Your task to perform on an android device: open app "McDonald's" (install if not already installed), go to login, and select forgot password Image 0: 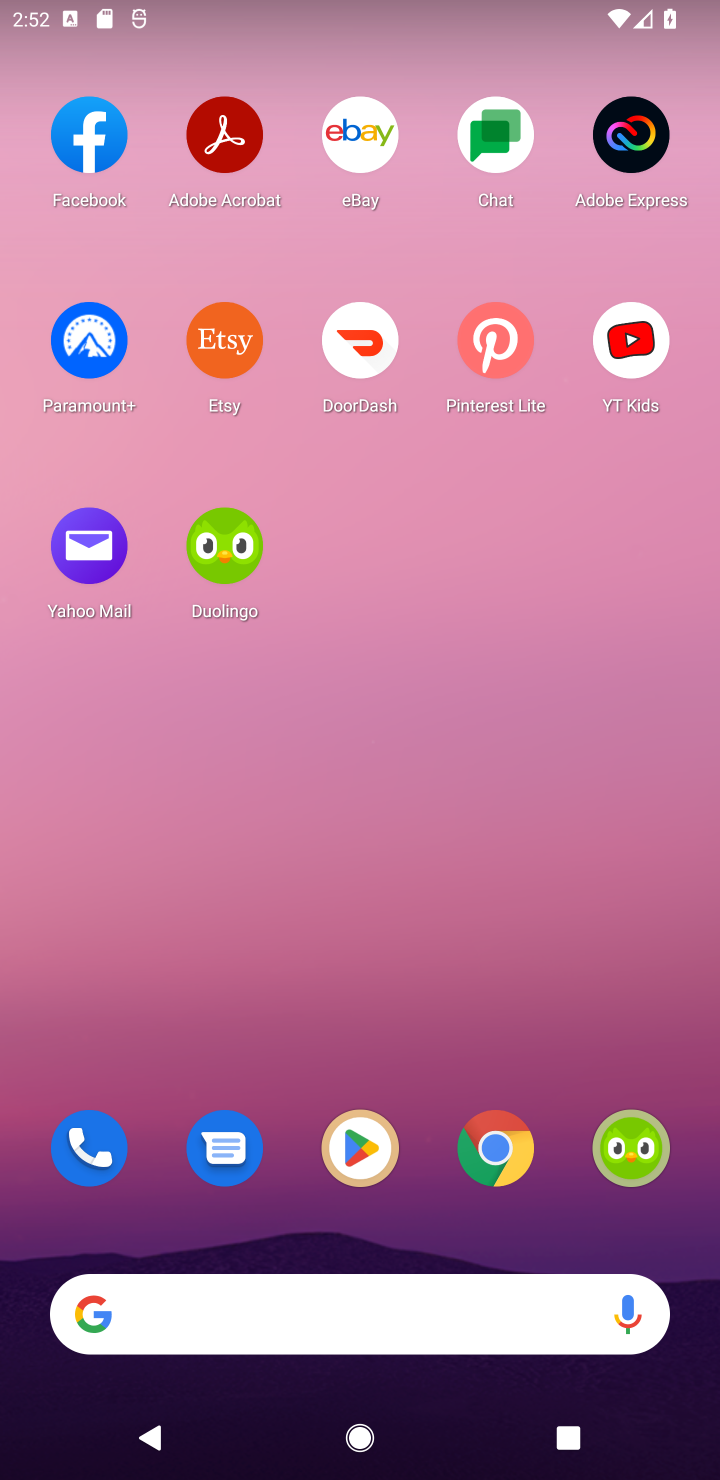
Step 0: click (368, 1152)
Your task to perform on an android device: open app "McDonald's" (install if not already installed), go to login, and select forgot password Image 1: 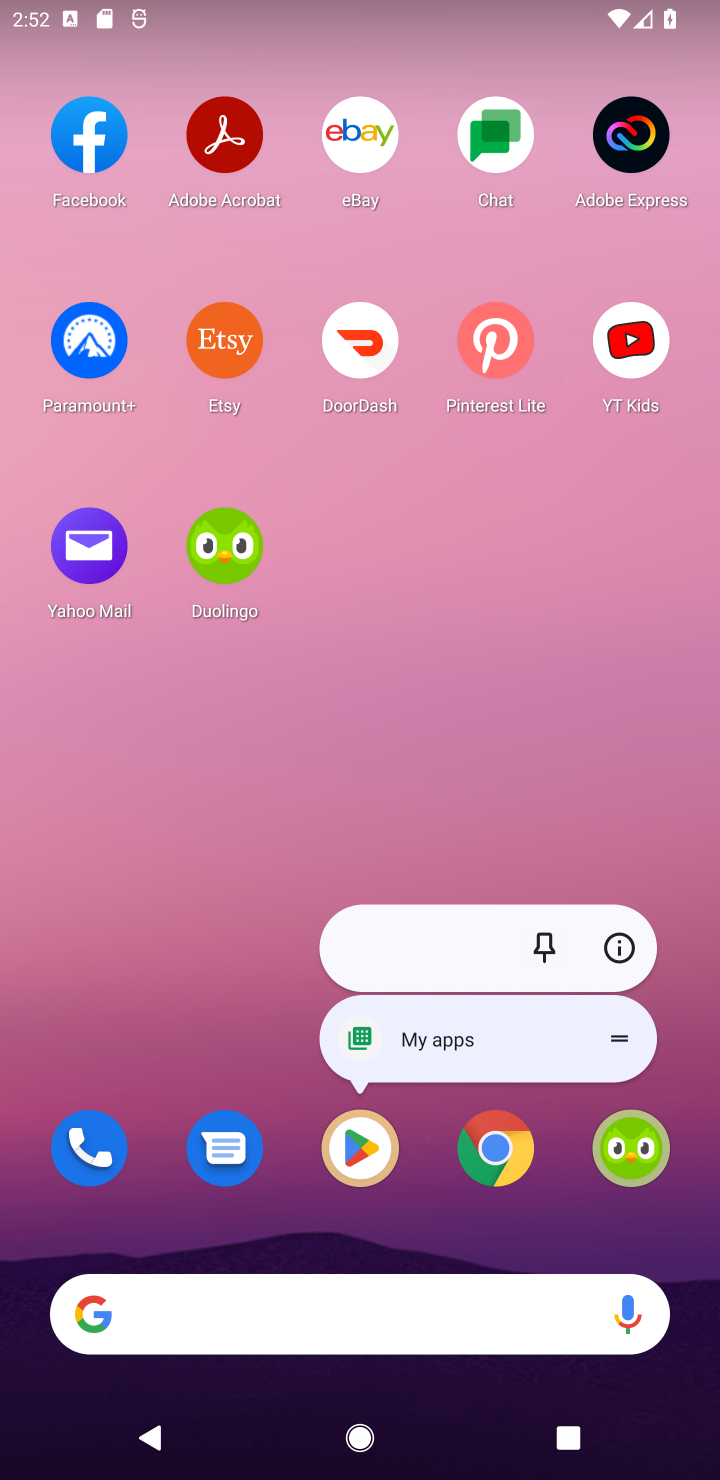
Step 1: click (368, 1152)
Your task to perform on an android device: open app "McDonald's" (install if not already installed), go to login, and select forgot password Image 2: 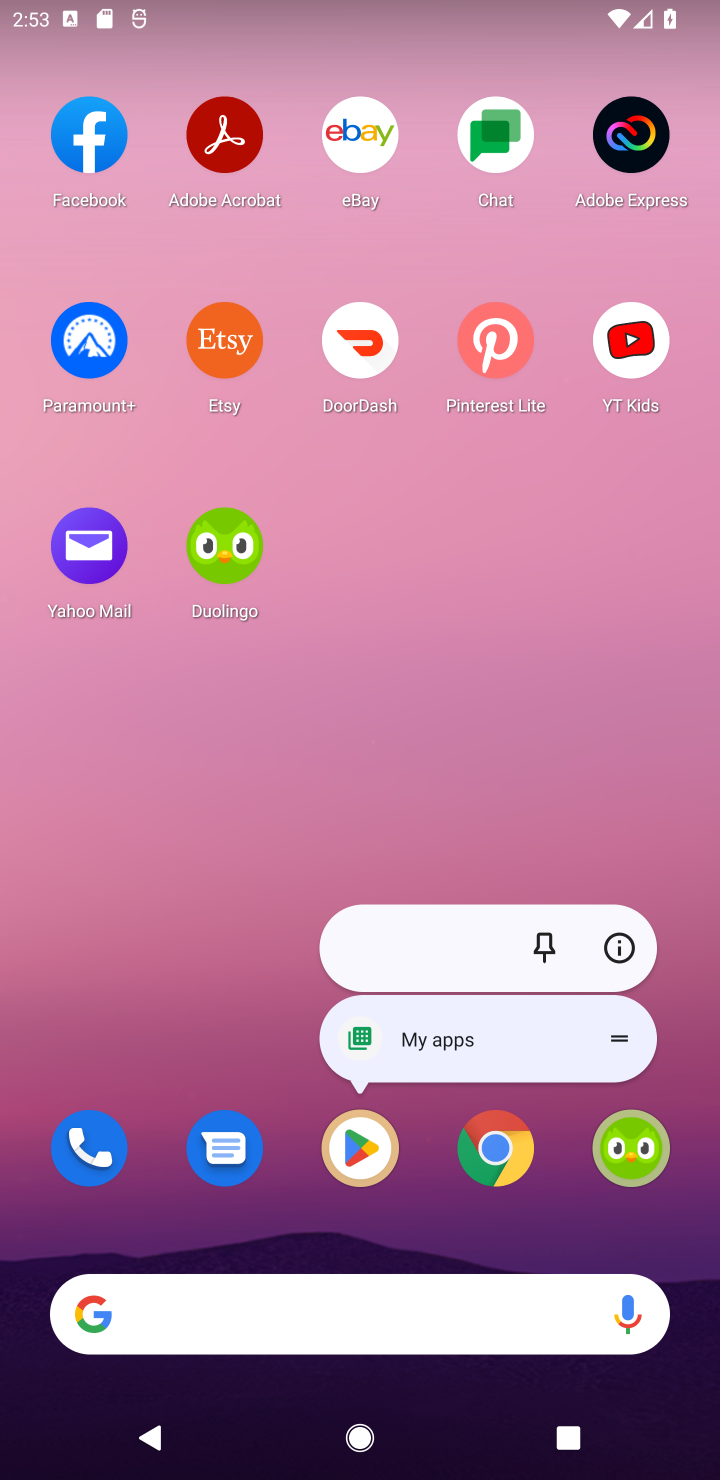
Step 2: click (368, 1152)
Your task to perform on an android device: open app "McDonald's" (install if not already installed), go to login, and select forgot password Image 3: 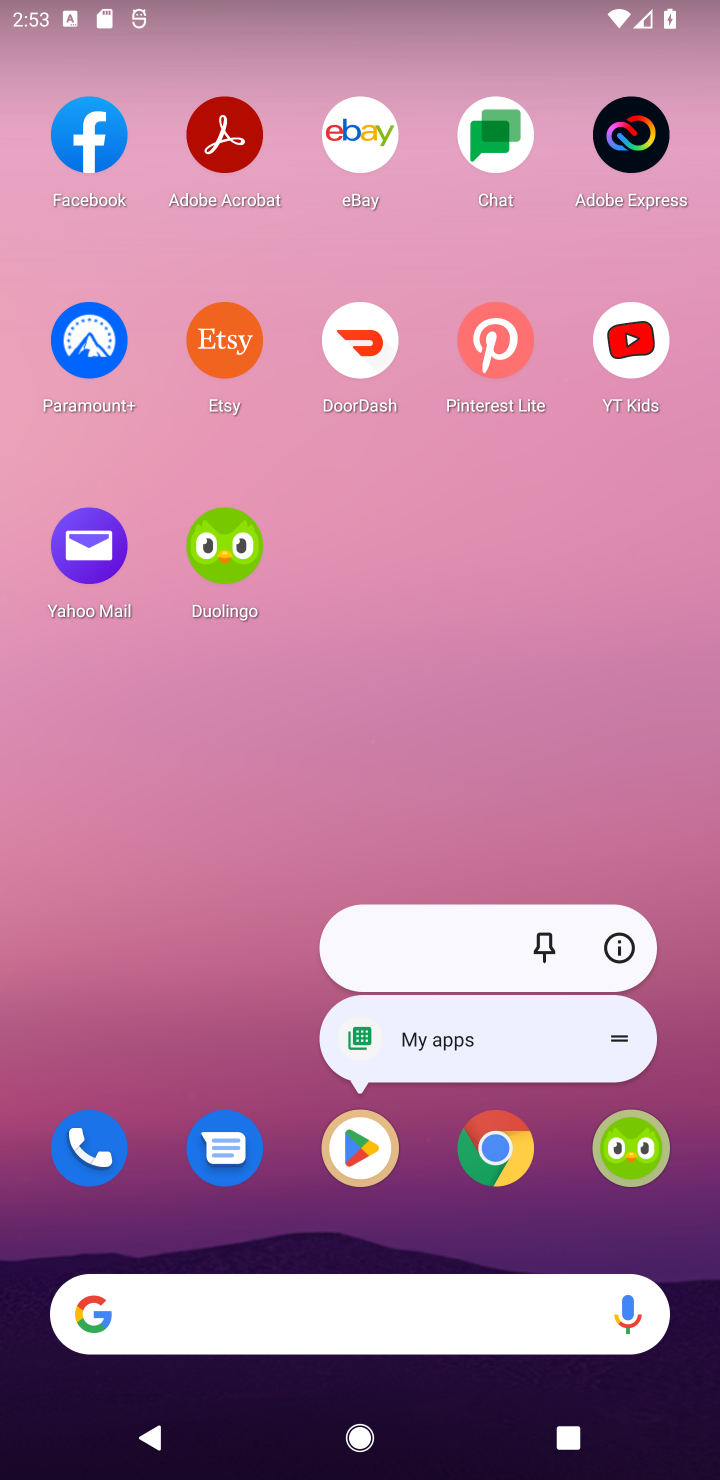
Step 3: click (340, 1137)
Your task to perform on an android device: open app "McDonald's" (install if not already installed), go to login, and select forgot password Image 4: 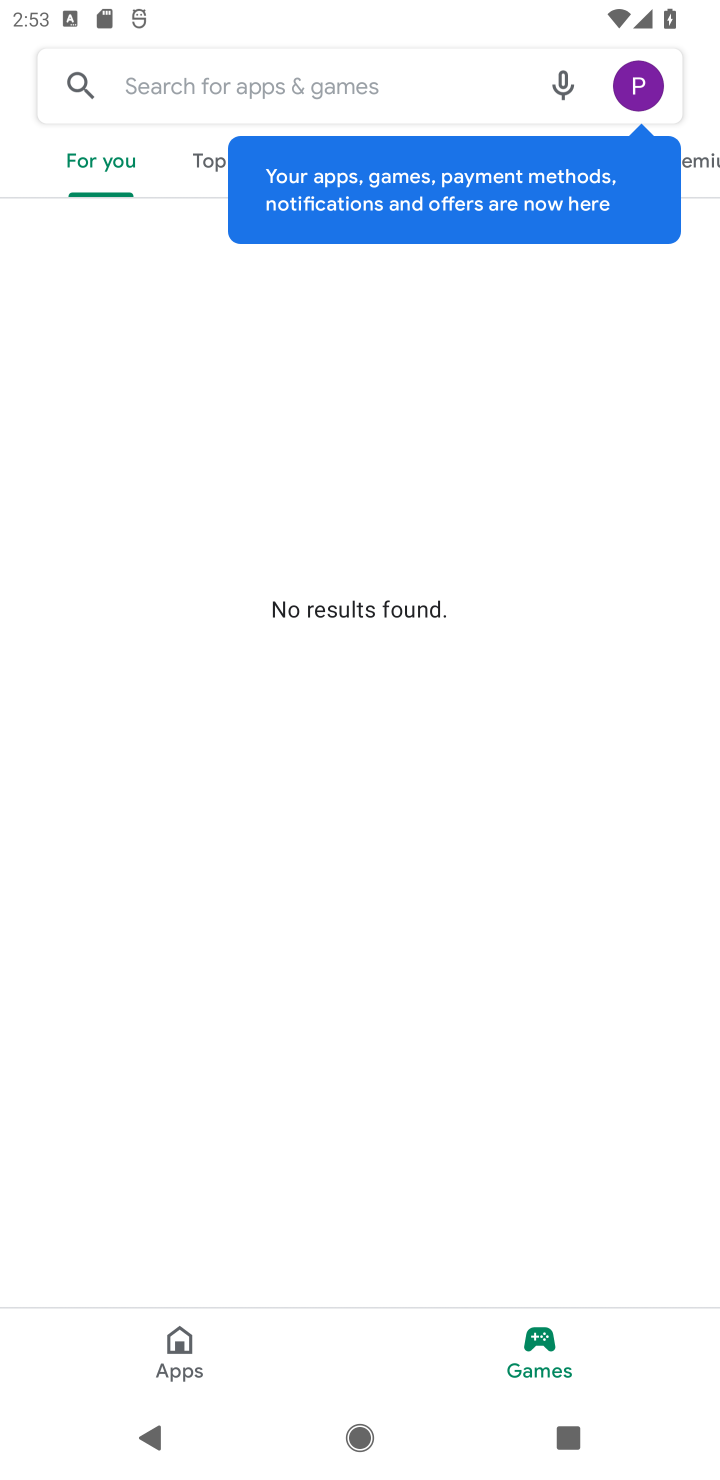
Step 4: click (207, 53)
Your task to perform on an android device: open app "McDonald's" (install if not already installed), go to login, and select forgot password Image 5: 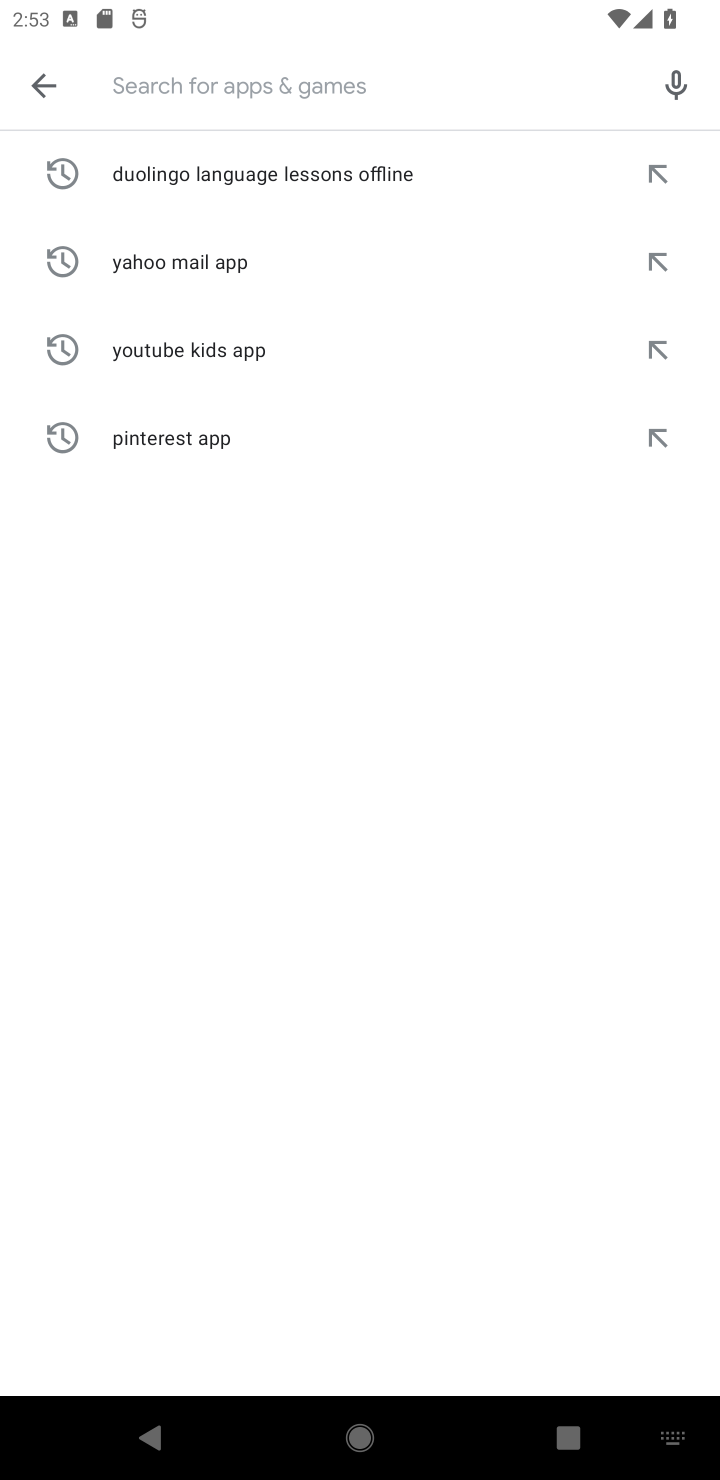
Step 5: type "McDonald's "
Your task to perform on an android device: open app "McDonald's" (install if not already installed), go to login, and select forgot password Image 6: 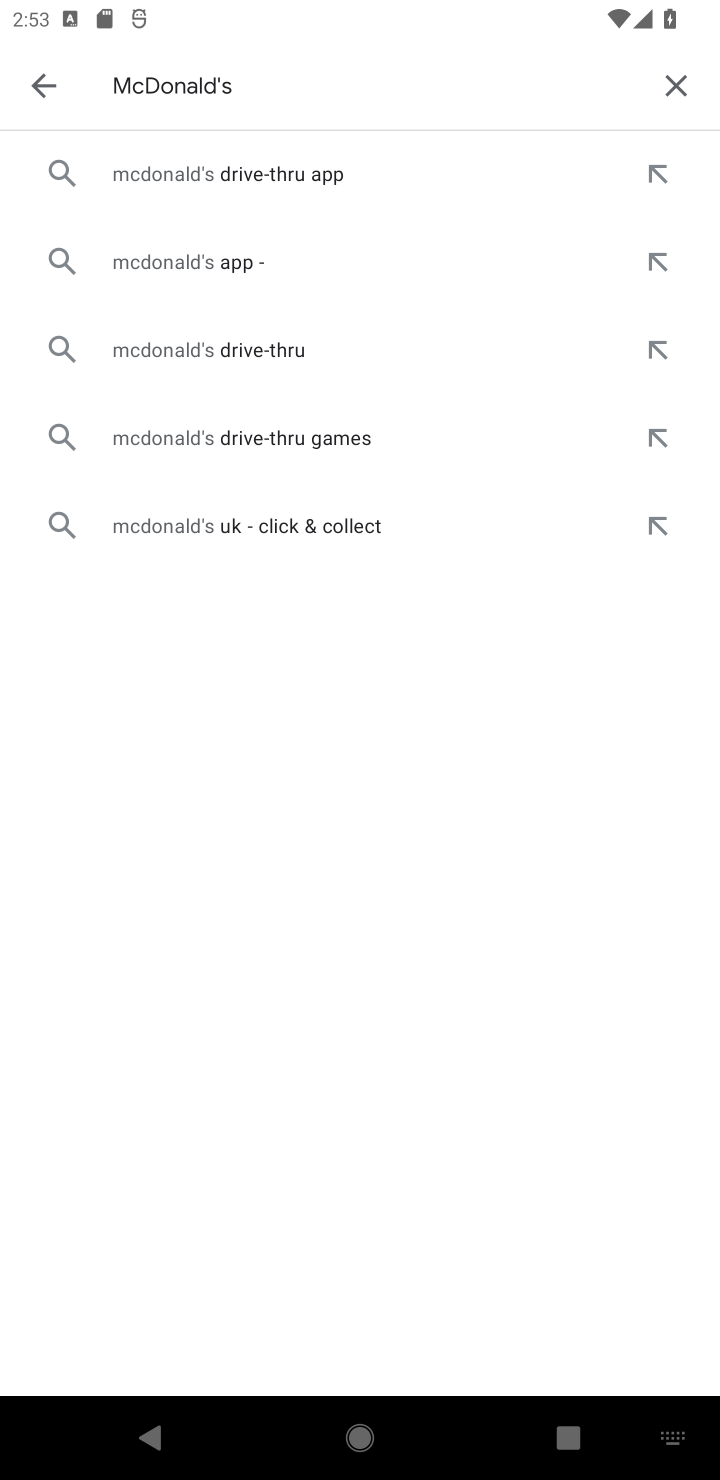
Step 6: click (227, 167)
Your task to perform on an android device: open app "McDonald's" (install if not already installed), go to login, and select forgot password Image 7: 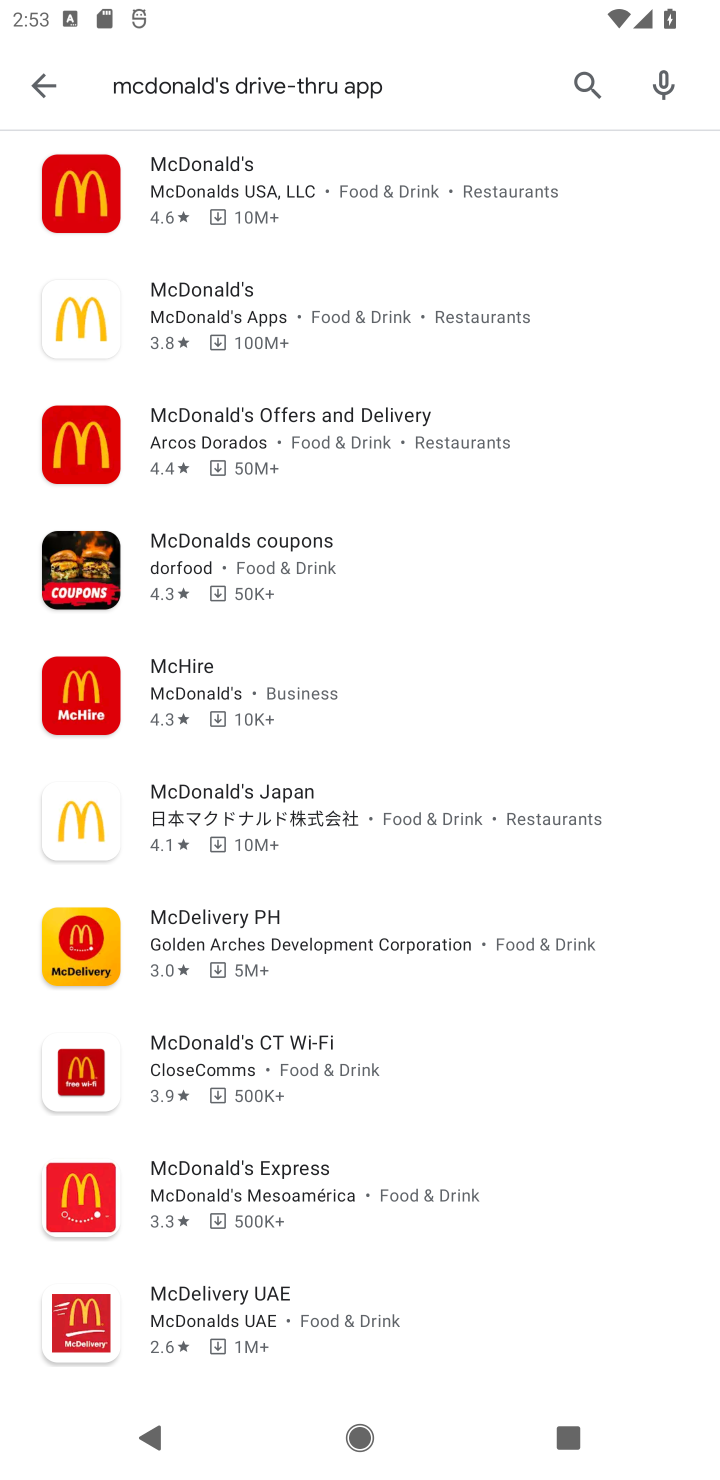
Step 7: click (284, 203)
Your task to perform on an android device: open app "McDonald's" (install if not already installed), go to login, and select forgot password Image 8: 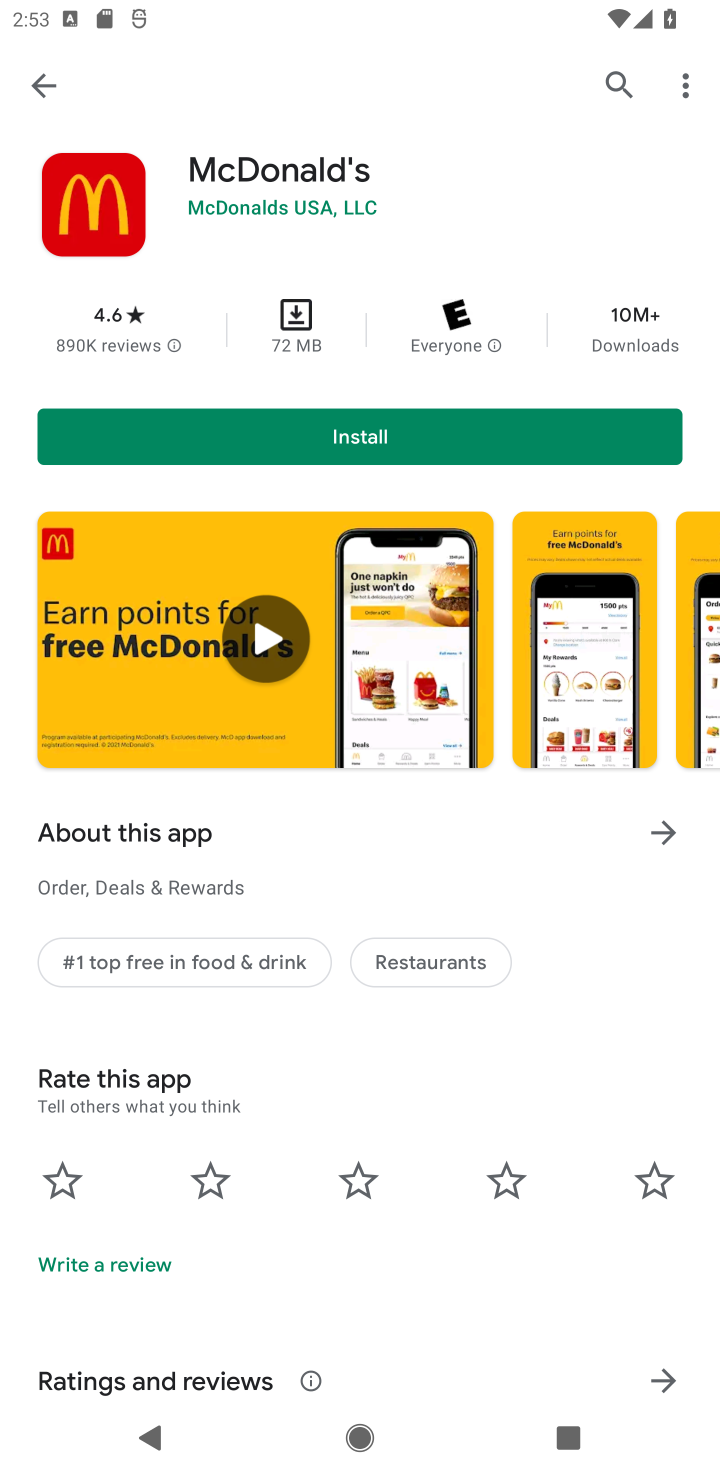
Step 8: click (452, 432)
Your task to perform on an android device: open app "McDonald's" (install if not already installed), go to login, and select forgot password Image 9: 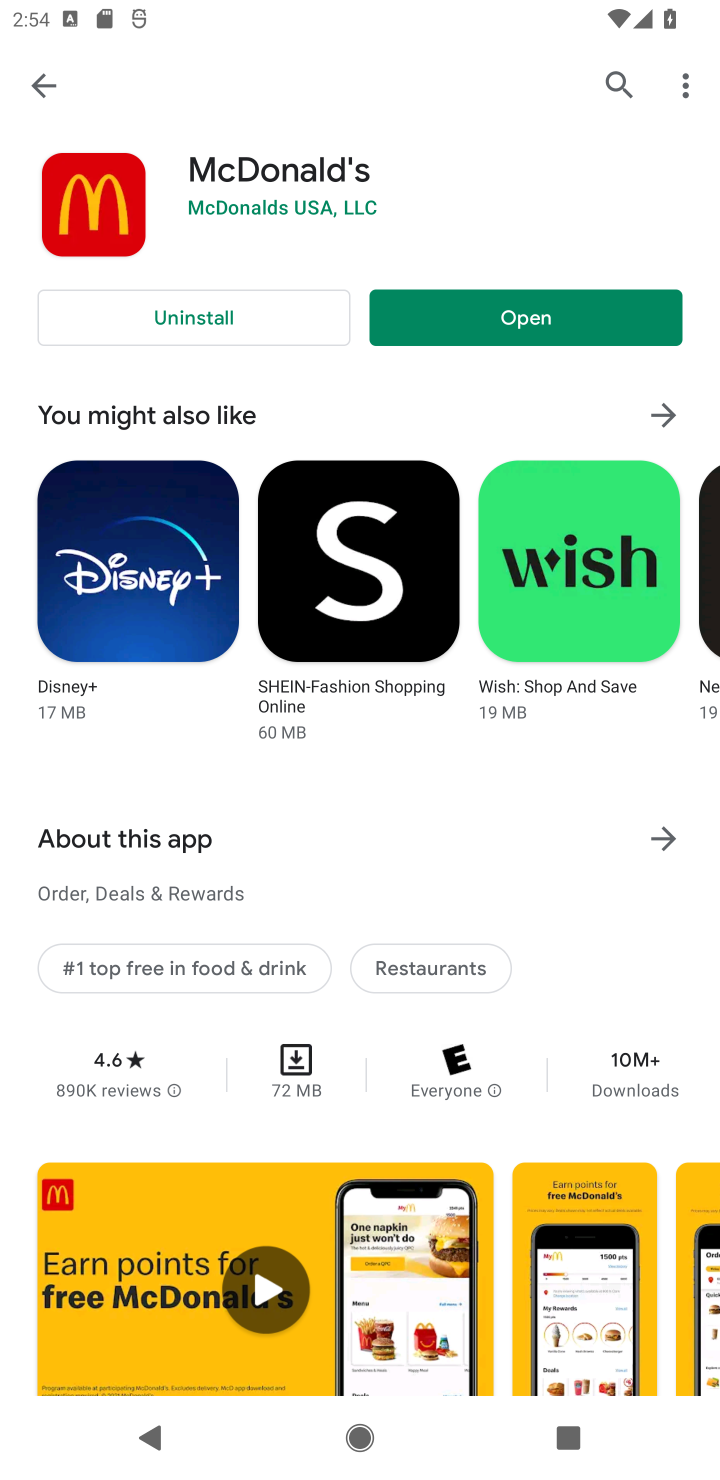
Step 9: click (553, 324)
Your task to perform on an android device: open app "McDonald's" (install if not already installed), go to login, and select forgot password Image 10: 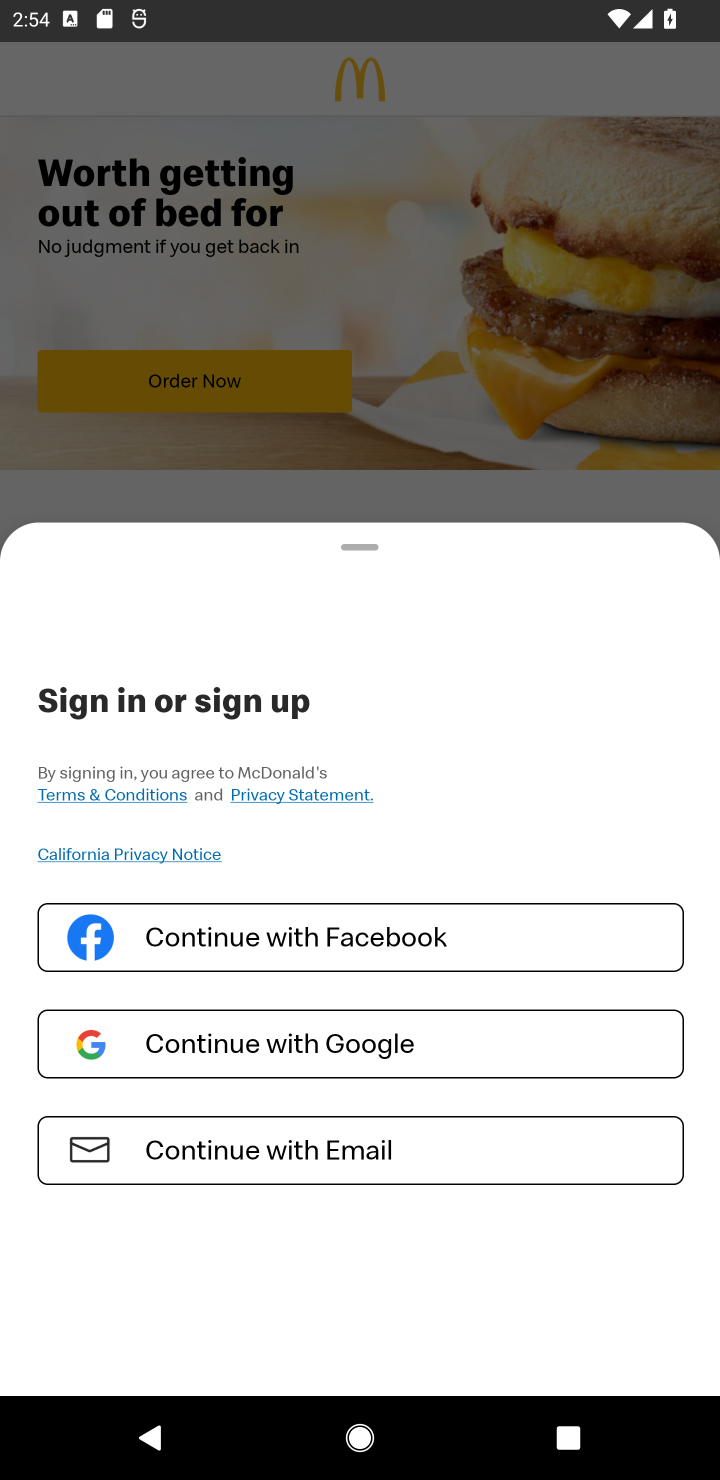
Step 10: task complete